Your task to perform on an android device: Toggle the flashlight Image 0: 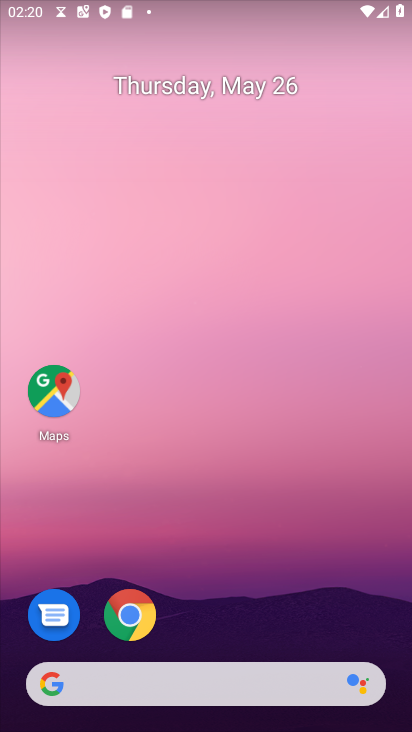
Step 0: drag from (207, 625) to (203, 7)
Your task to perform on an android device: Toggle the flashlight Image 1: 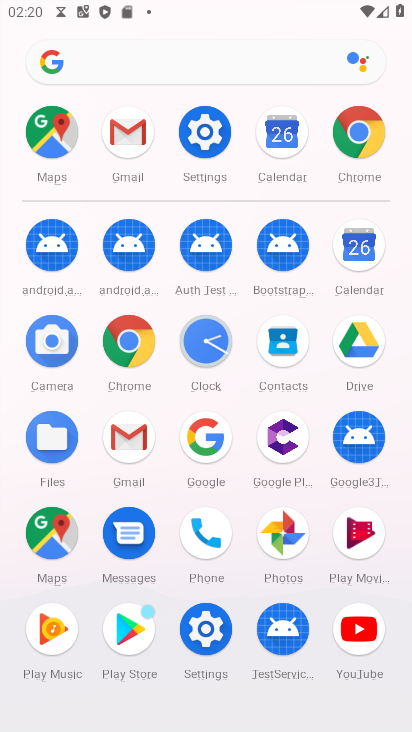
Step 1: click (201, 124)
Your task to perform on an android device: Toggle the flashlight Image 2: 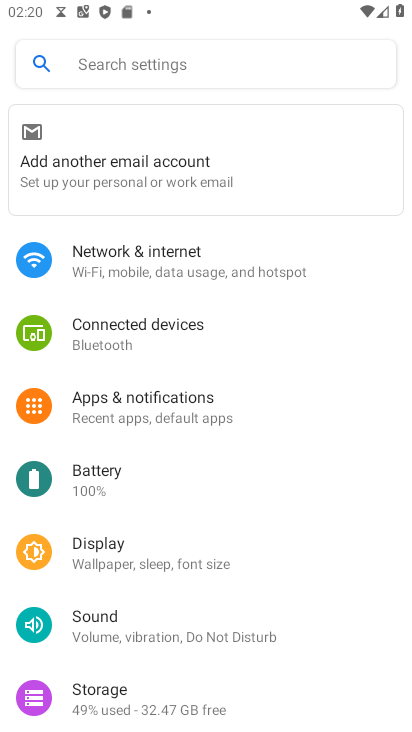
Step 2: click (169, 53)
Your task to perform on an android device: Toggle the flashlight Image 3: 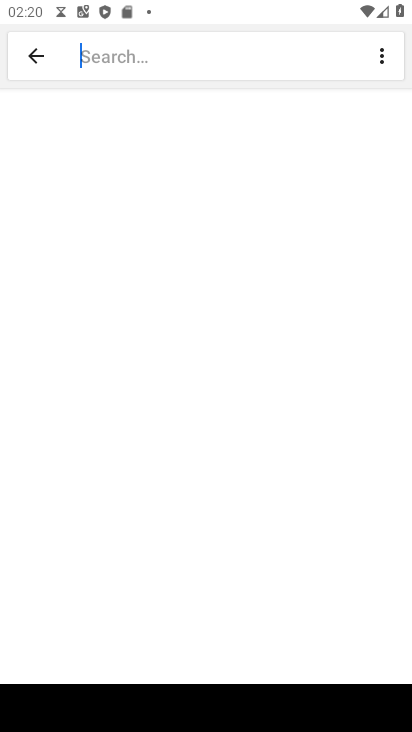
Step 3: type "flashlight"
Your task to perform on an android device: Toggle the flashlight Image 4: 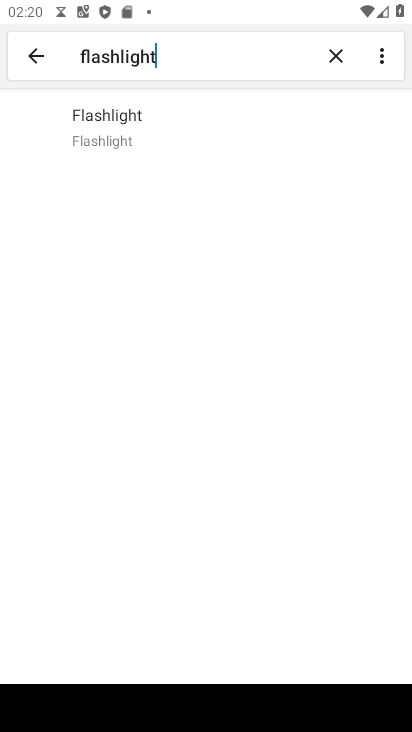
Step 4: click (142, 123)
Your task to perform on an android device: Toggle the flashlight Image 5: 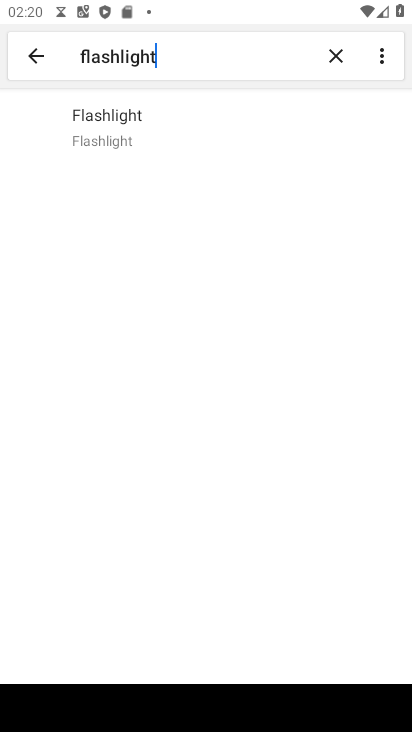
Step 5: click (142, 123)
Your task to perform on an android device: Toggle the flashlight Image 6: 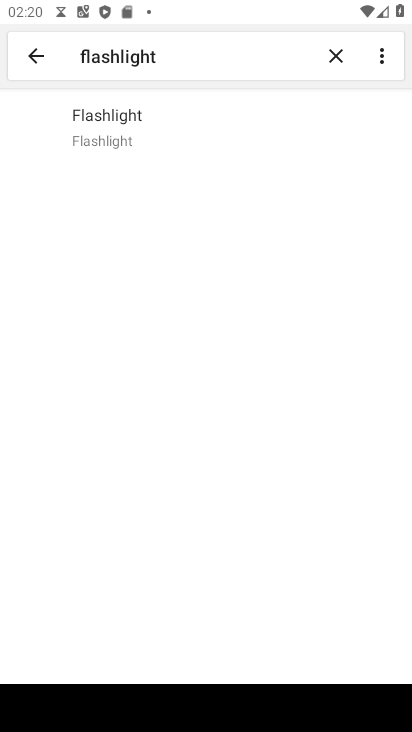
Step 6: task complete